Your task to perform on an android device: toggle show notifications on the lock screen Image 0: 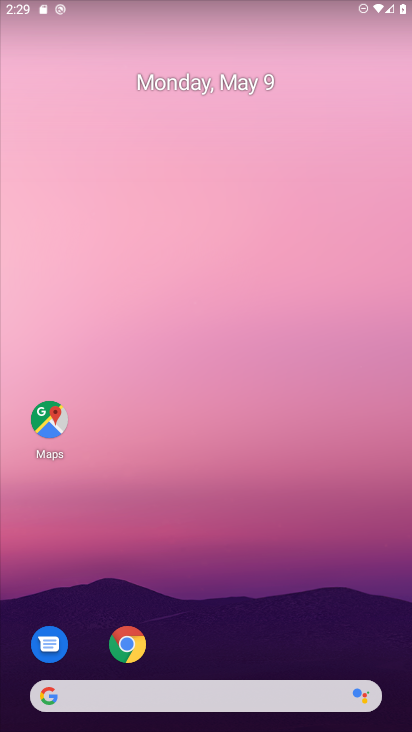
Step 0: drag from (211, 645) to (197, 356)
Your task to perform on an android device: toggle show notifications on the lock screen Image 1: 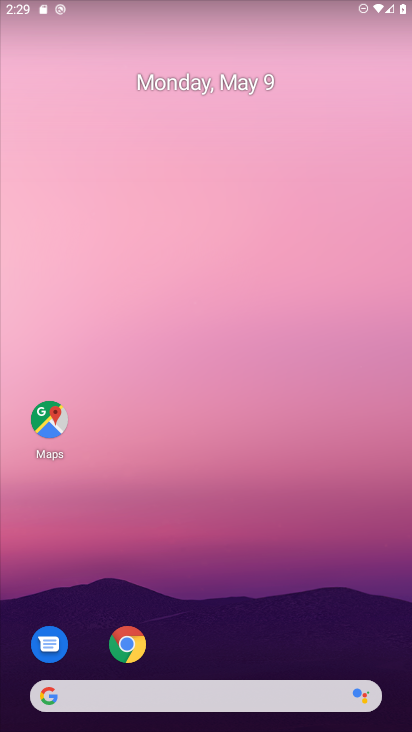
Step 1: drag from (253, 612) to (250, 180)
Your task to perform on an android device: toggle show notifications on the lock screen Image 2: 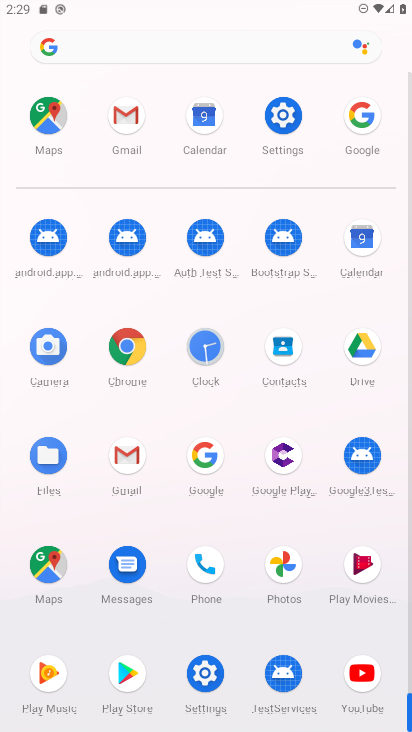
Step 2: click (285, 118)
Your task to perform on an android device: toggle show notifications on the lock screen Image 3: 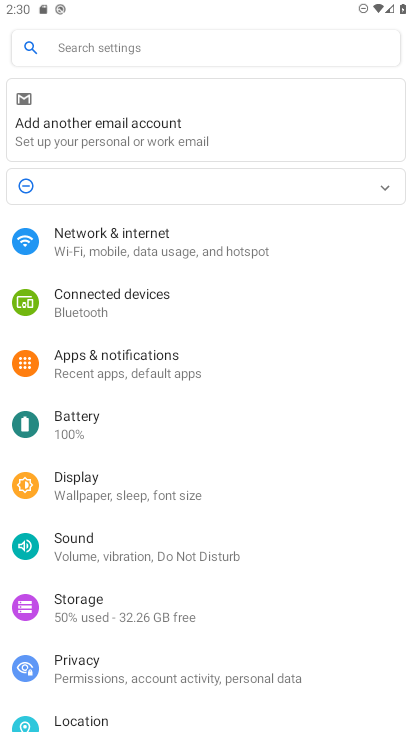
Step 3: click (111, 380)
Your task to perform on an android device: toggle show notifications on the lock screen Image 4: 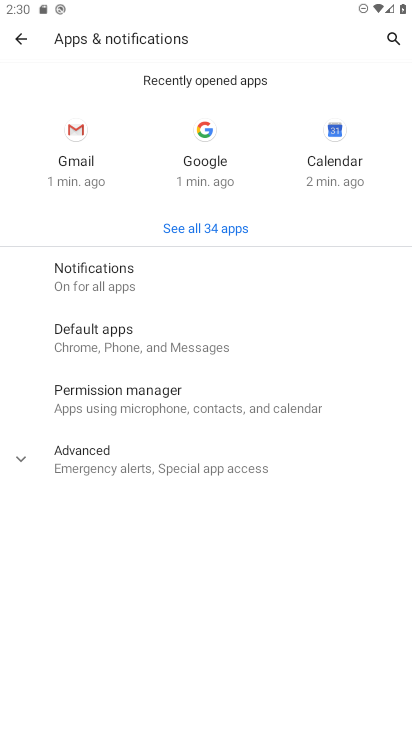
Step 4: click (113, 285)
Your task to perform on an android device: toggle show notifications on the lock screen Image 5: 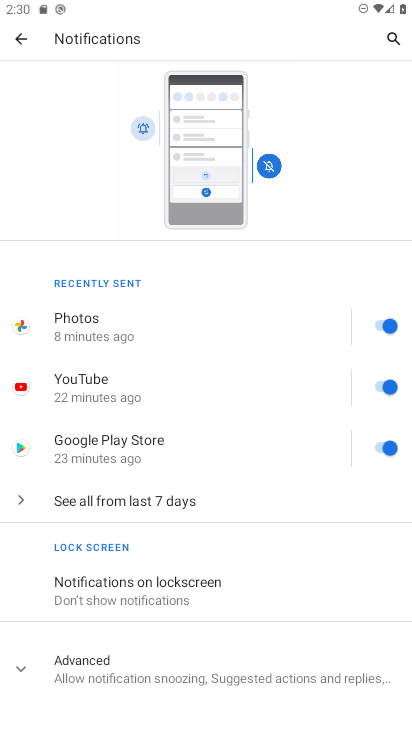
Step 5: drag from (212, 622) to (350, 296)
Your task to perform on an android device: toggle show notifications on the lock screen Image 6: 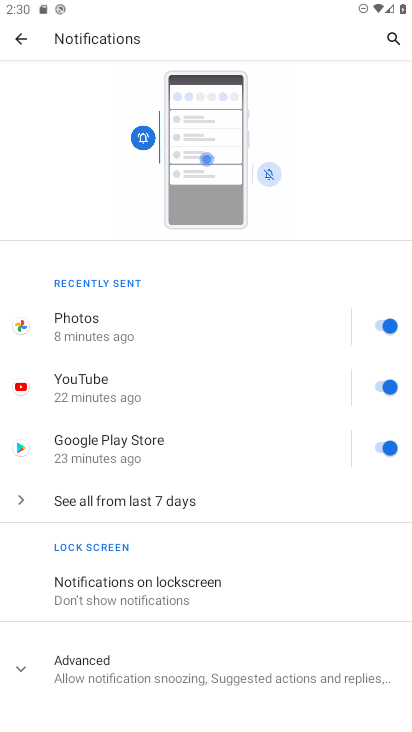
Step 6: click (113, 572)
Your task to perform on an android device: toggle show notifications on the lock screen Image 7: 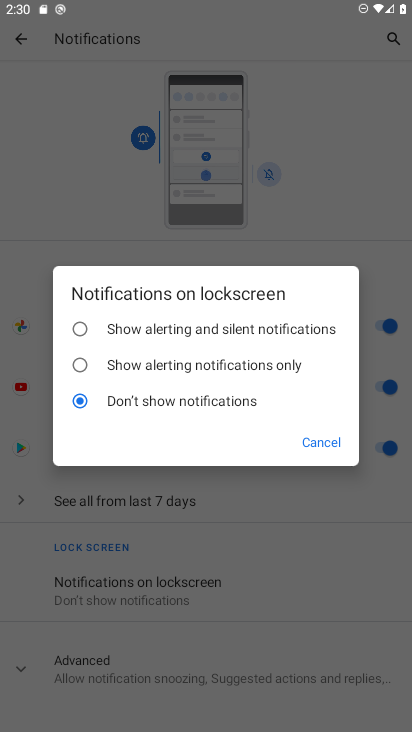
Step 7: click (85, 337)
Your task to perform on an android device: toggle show notifications on the lock screen Image 8: 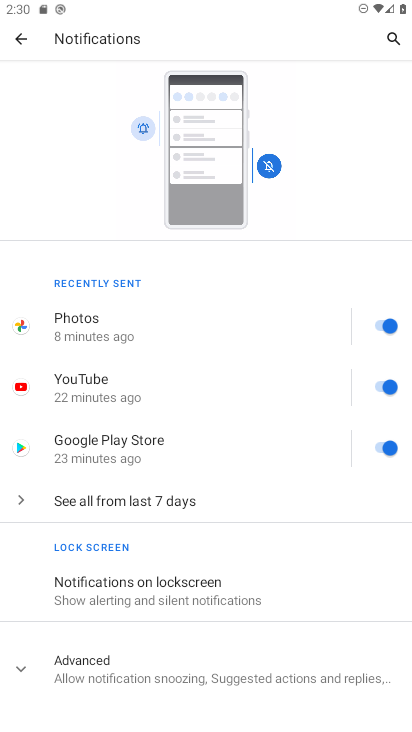
Step 8: task complete